Your task to perform on an android device: turn off notifications in google photos Image 0: 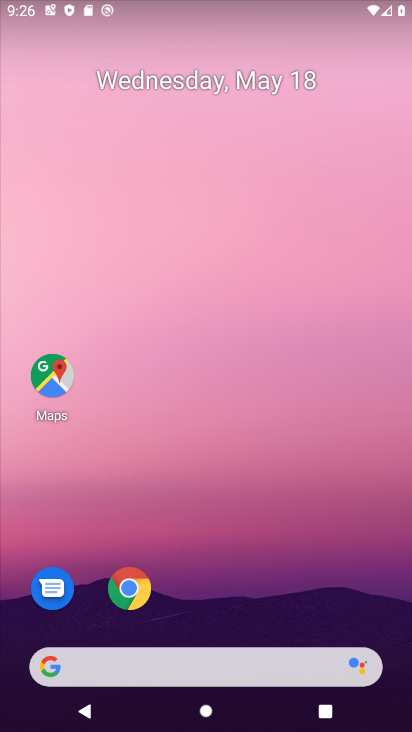
Step 0: drag from (250, 675) to (255, 274)
Your task to perform on an android device: turn off notifications in google photos Image 1: 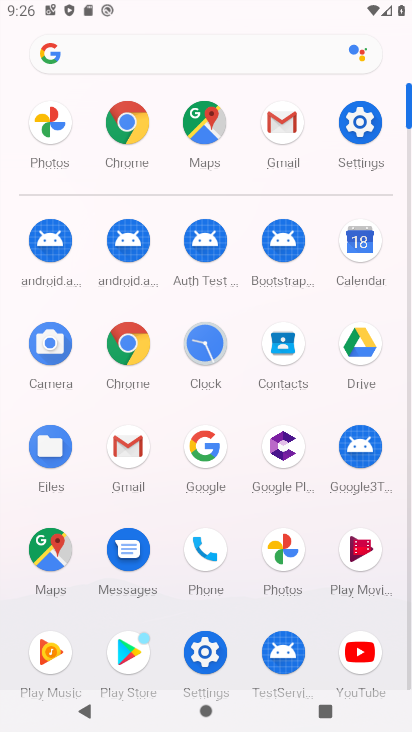
Step 1: click (299, 536)
Your task to perform on an android device: turn off notifications in google photos Image 2: 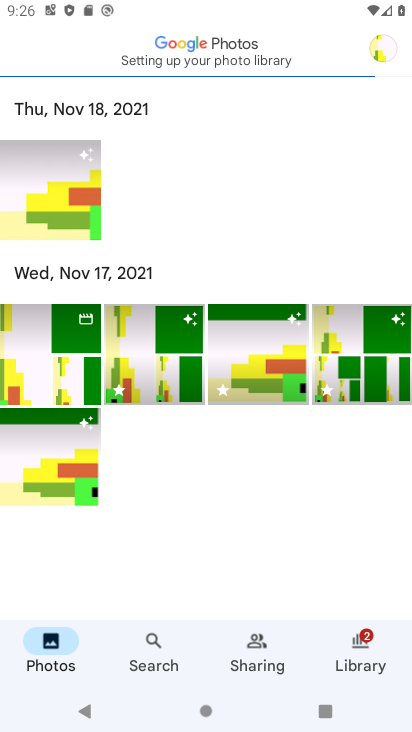
Step 2: click (381, 51)
Your task to perform on an android device: turn off notifications in google photos Image 3: 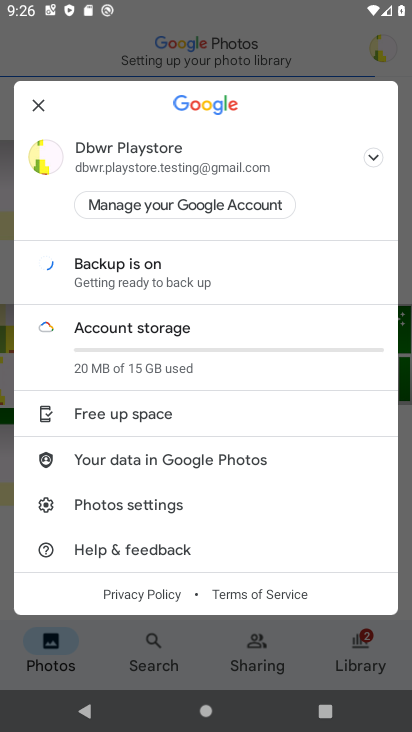
Step 3: click (156, 506)
Your task to perform on an android device: turn off notifications in google photos Image 4: 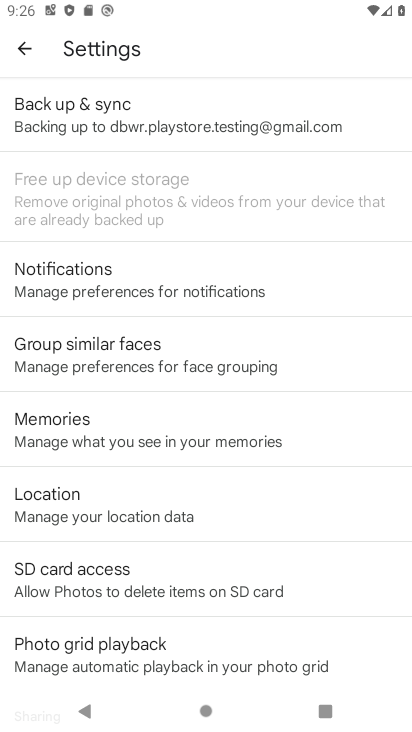
Step 4: click (115, 291)
Your task to perform on an android device: turn off notifications in google photos Image 5: 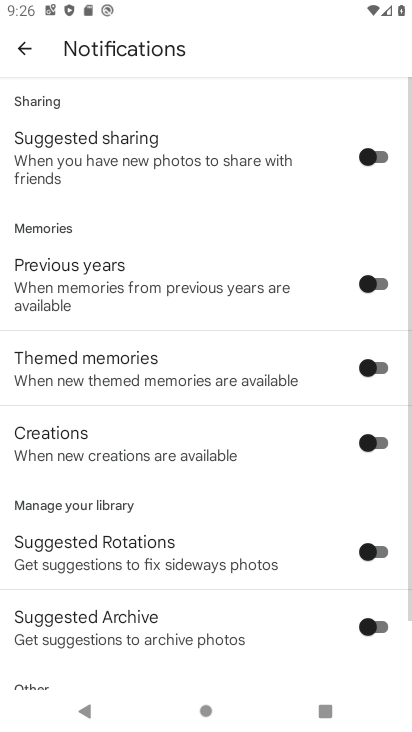
Step 5: drag from (190, 600) to (271, 270)
Your task to perform on an android device: turn off notifications in google photos Image 6: 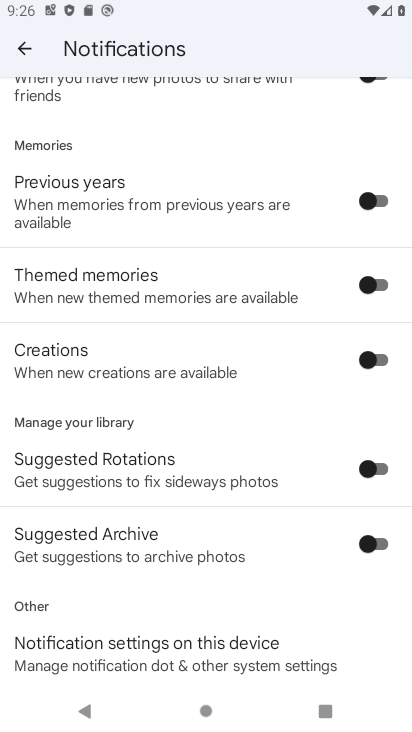
Step 6: click (138, 662)
Your task to perform on an android device: turn off notifications in google photos Image 7: 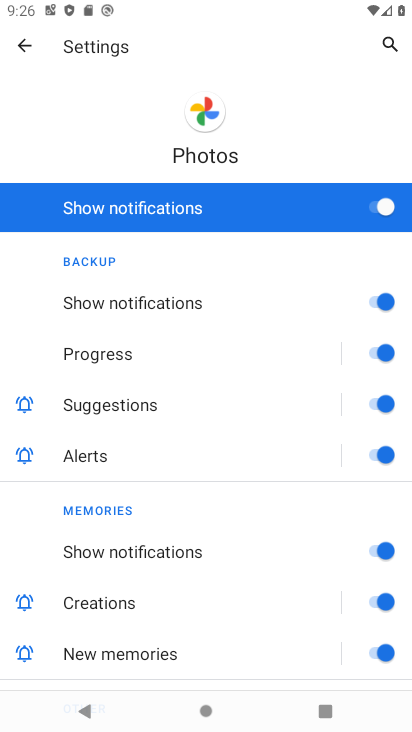
Step 7: click (380, 201)
Your task to perform on an android device: turn off notifications in google photos Image 8: 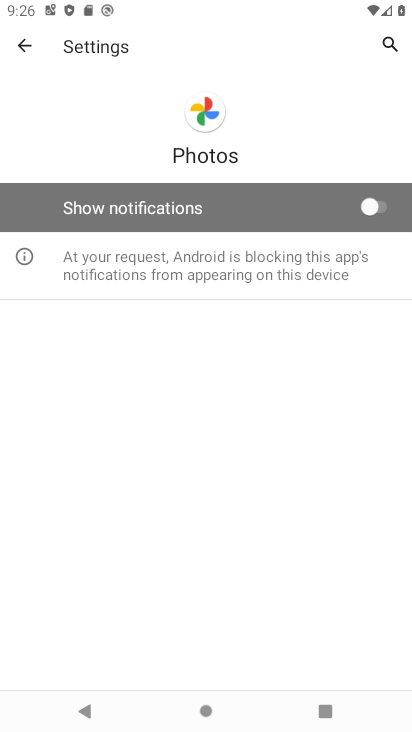
Step 8: task complete